Your task to perform on an android device: Open Chrome and go to the settings page Image 0: 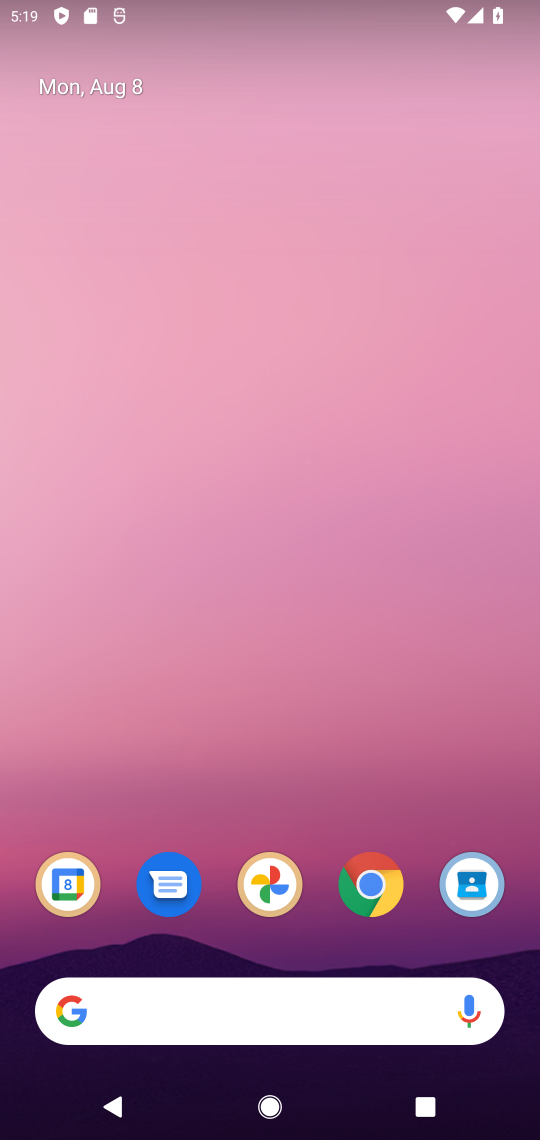
Step 0: click (357, 866)
Your task to perform on an android device: Open Chrome and go to the settings page Image 1: 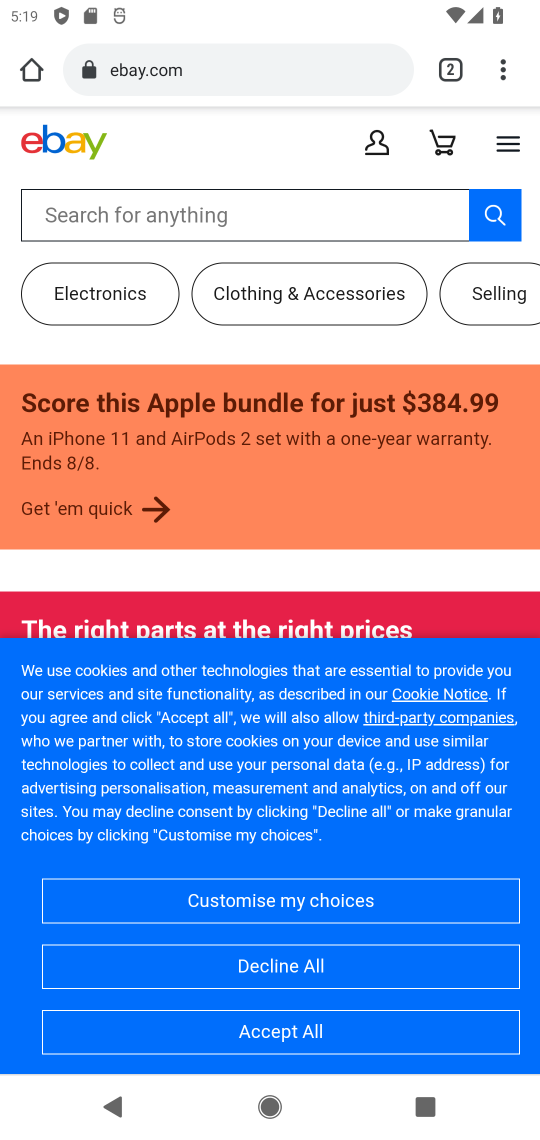
Step 1: click (505, 74)
Your task to perform on an android device: Open Chrome and go to the settings page Image 2: 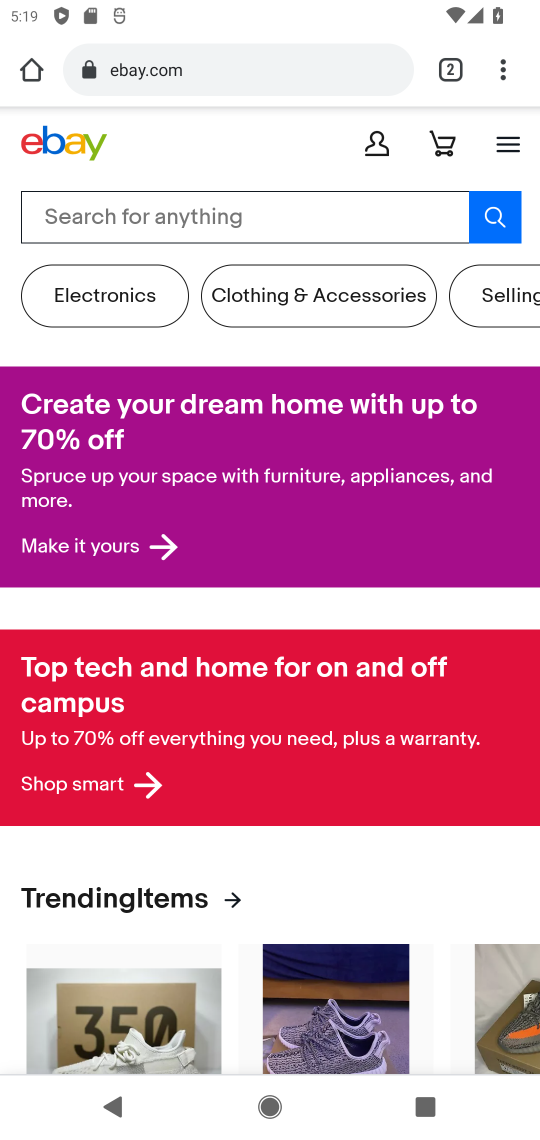
Step 2: click (505, 74)
Your task to perform on an android device: Open Chrome and go to the settings page Image 3: 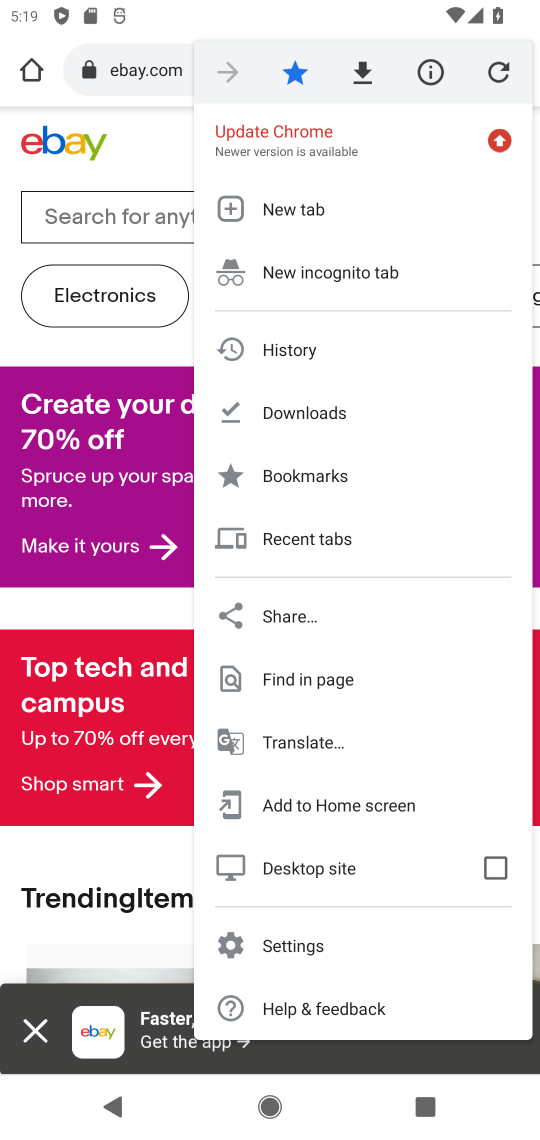
Step 3: click (312, 953)
Your task to perform on an android device: Open Chrome and go to the settings page Image 4: 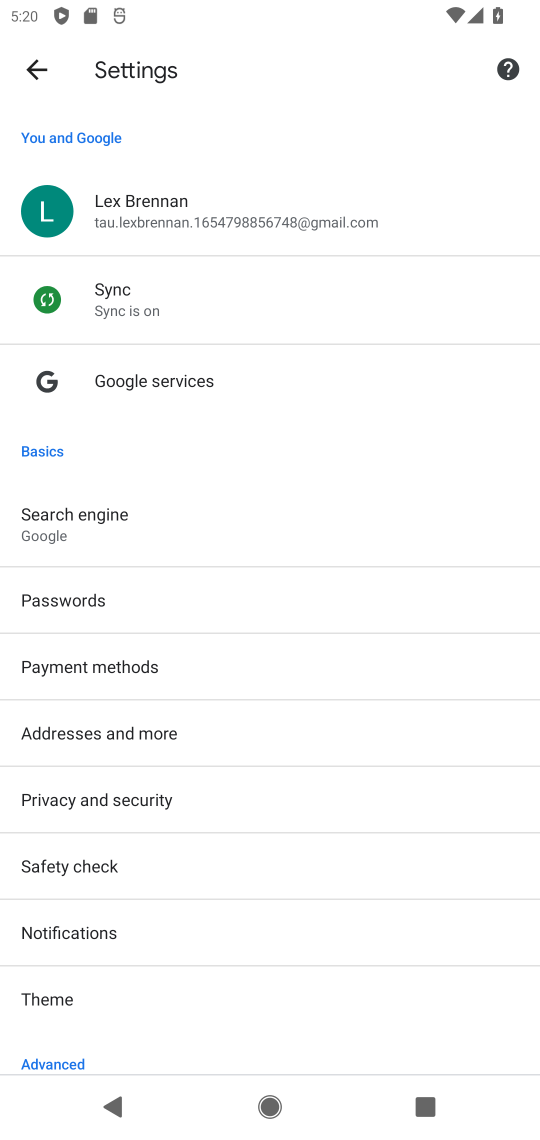
Step 4: task complete